Your task to perform on an android device: Show me the best basketball shoes on Nike.com Image 0: 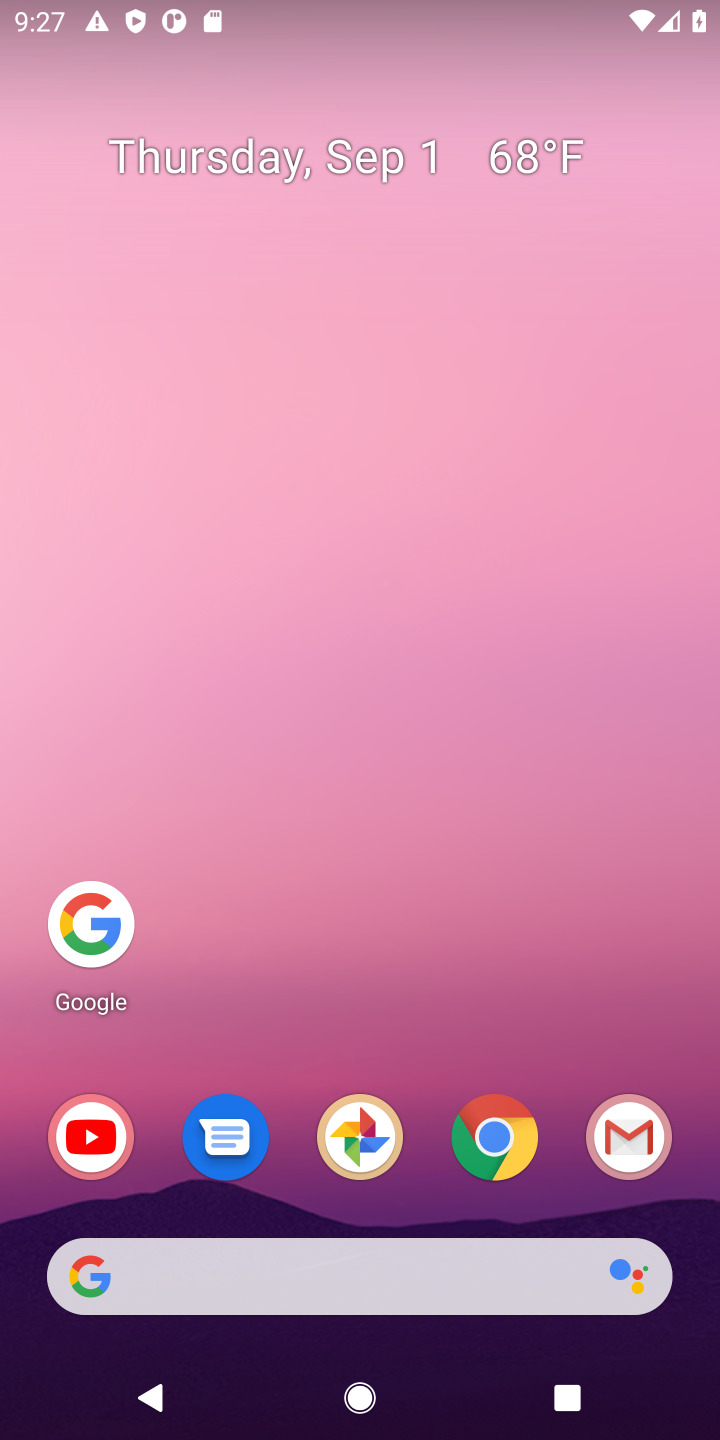
Step 0: click (235, 1257)
Your task to perform on an android device: Show me the best basketball shoes on Nike.com Image 1: 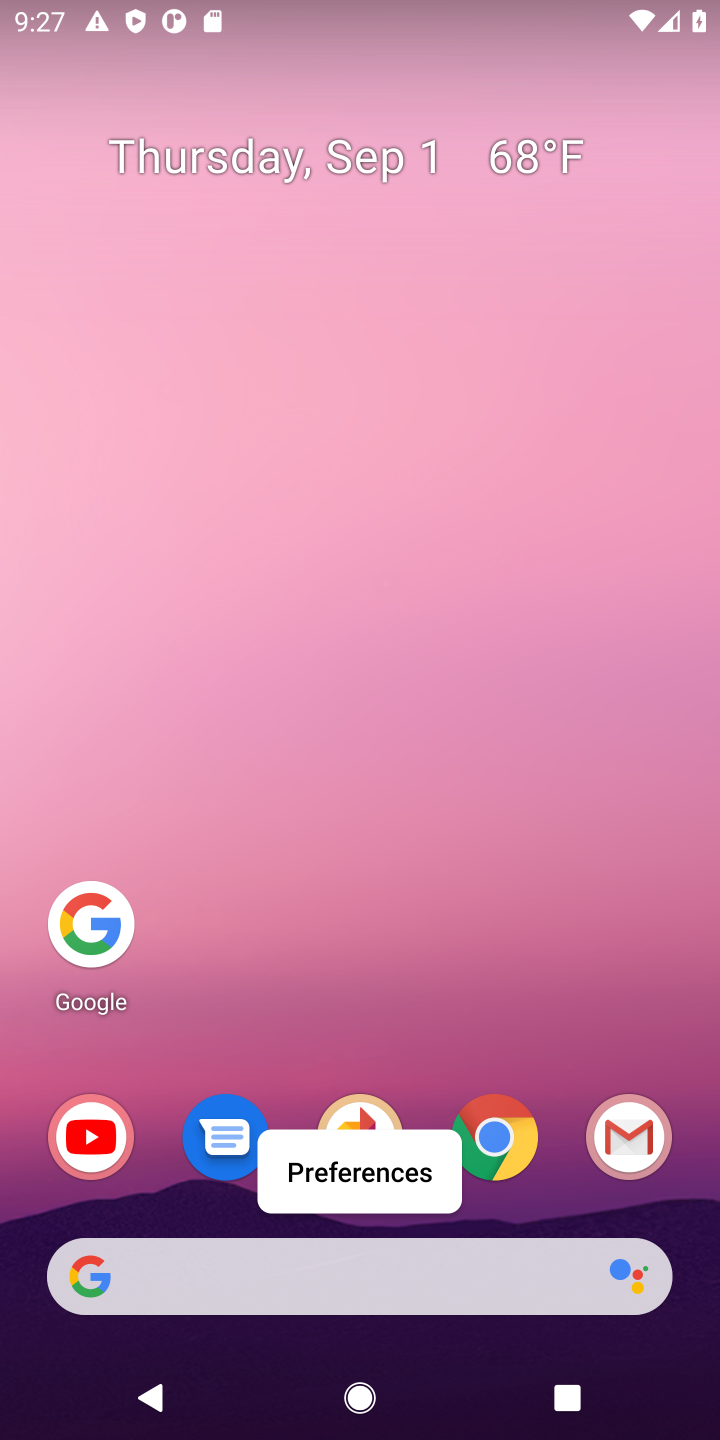
Step 1: click (86, 933)
Your task to perform on an android device: Show me the best basketball shoes on Nike.com Image 2: 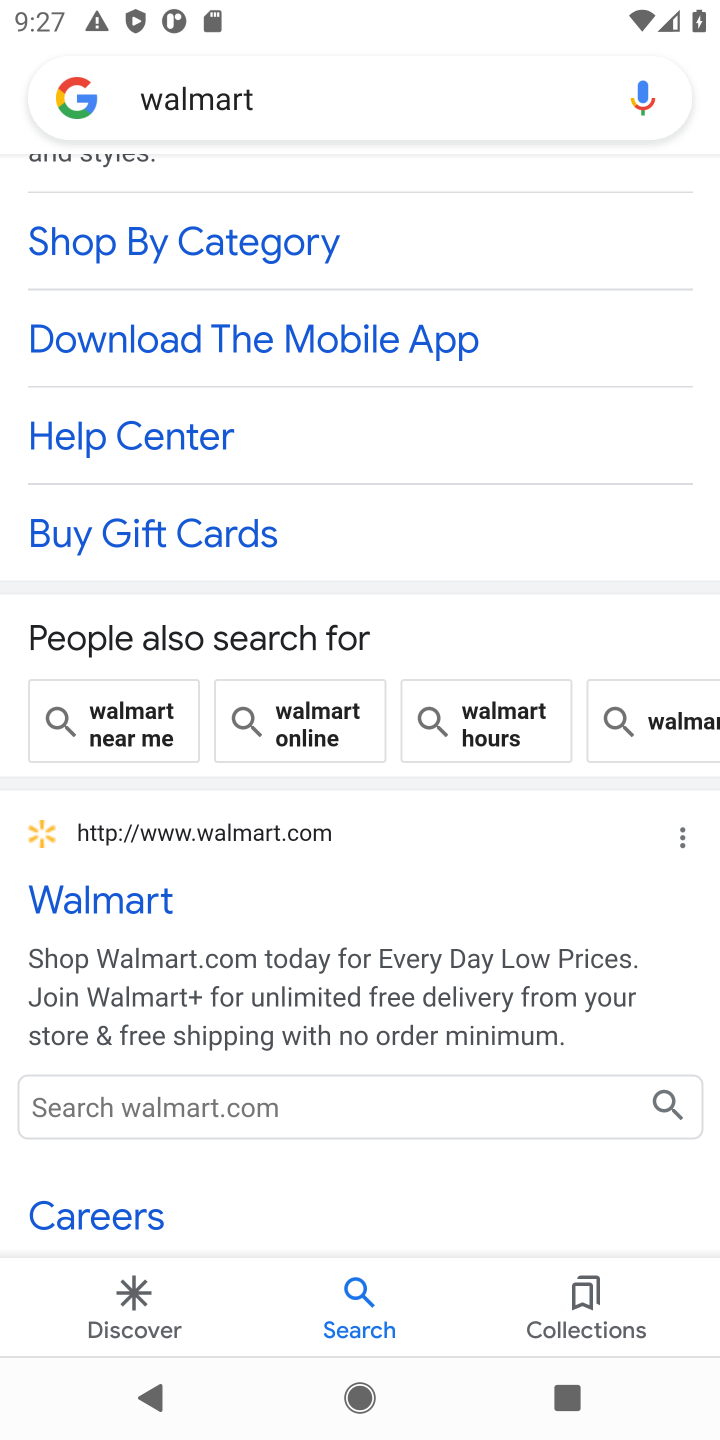
Step 2: click (346, 100)
Your task to perform on an android device: Show me the best basketball shoes on Nike.com Image 3: 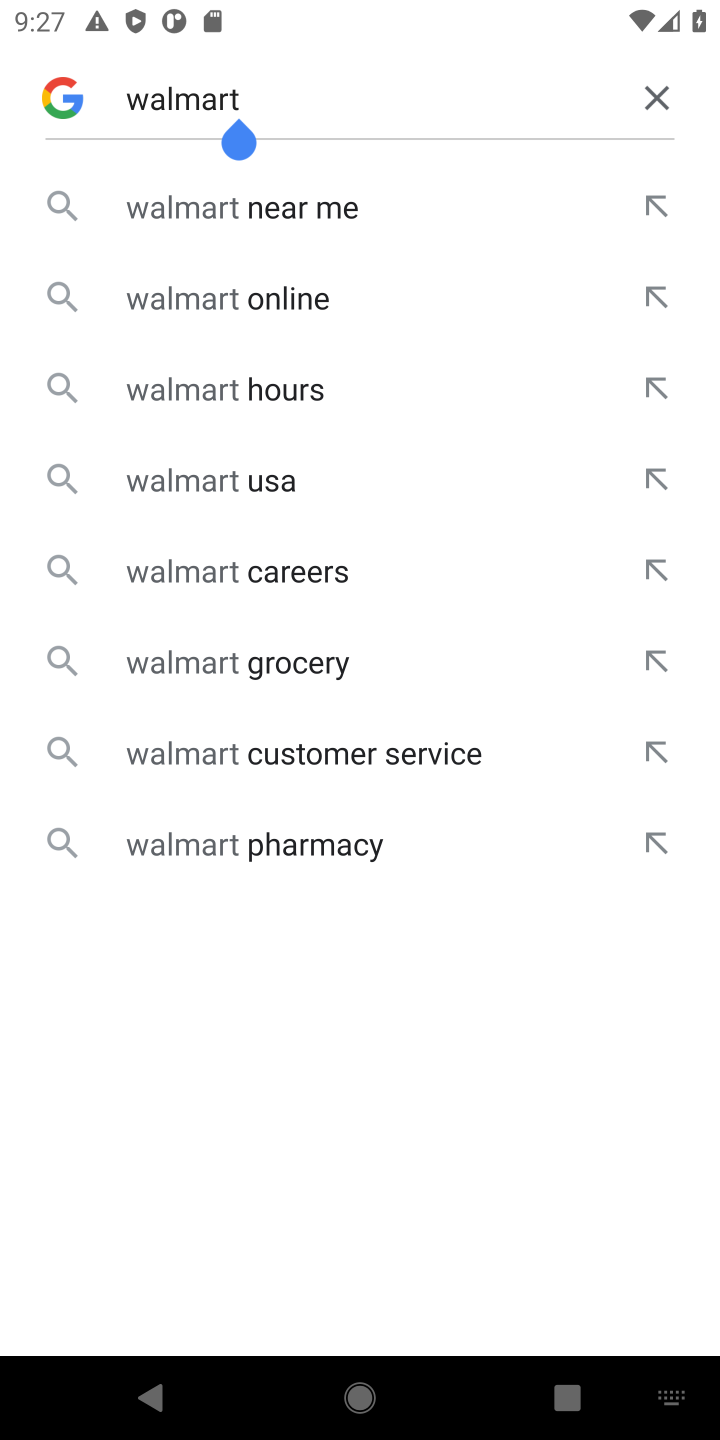
Step 3: click (662, 103)
Your task to perform on an android device: Show me the best basketball shoes on Nike.com Image 4: 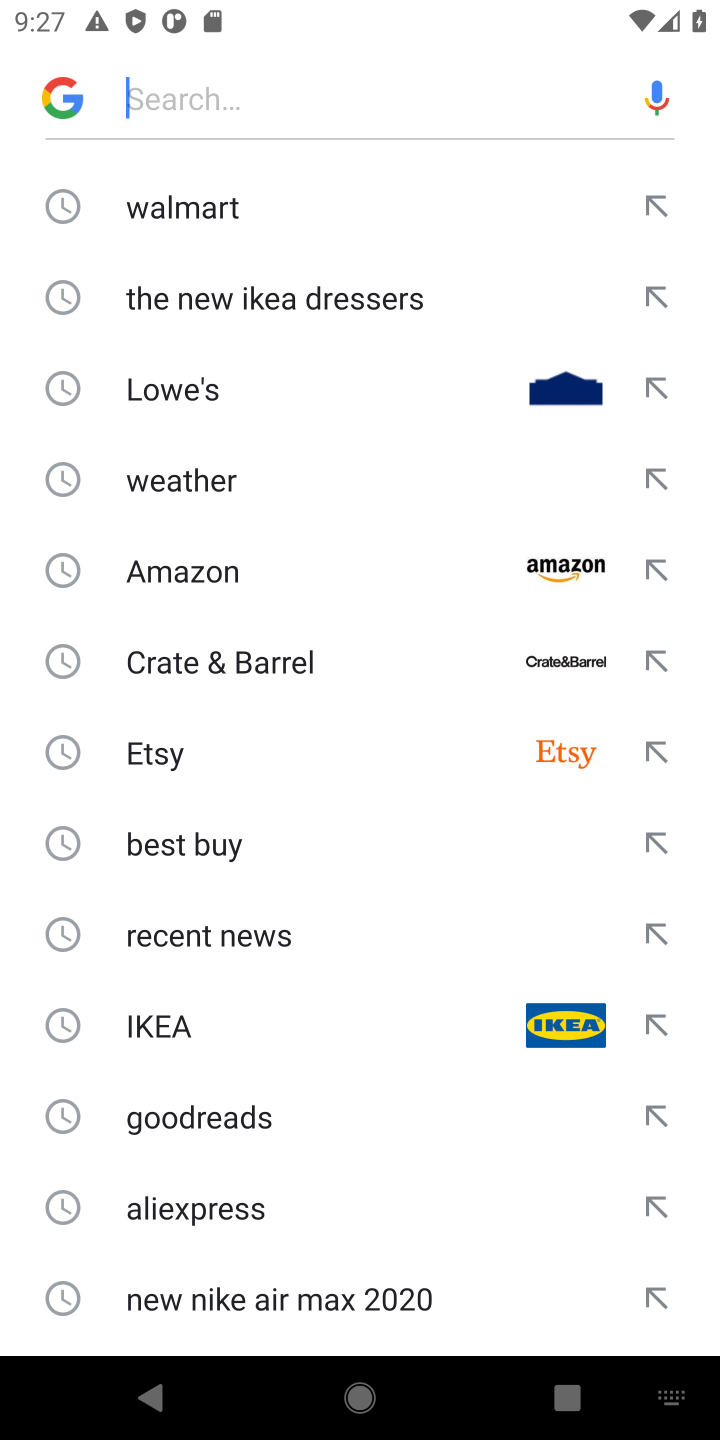
Step 4: type "nike.com"
Your task to perform on an android device: Show me the best basketball shoes on Nike.com Image 5: 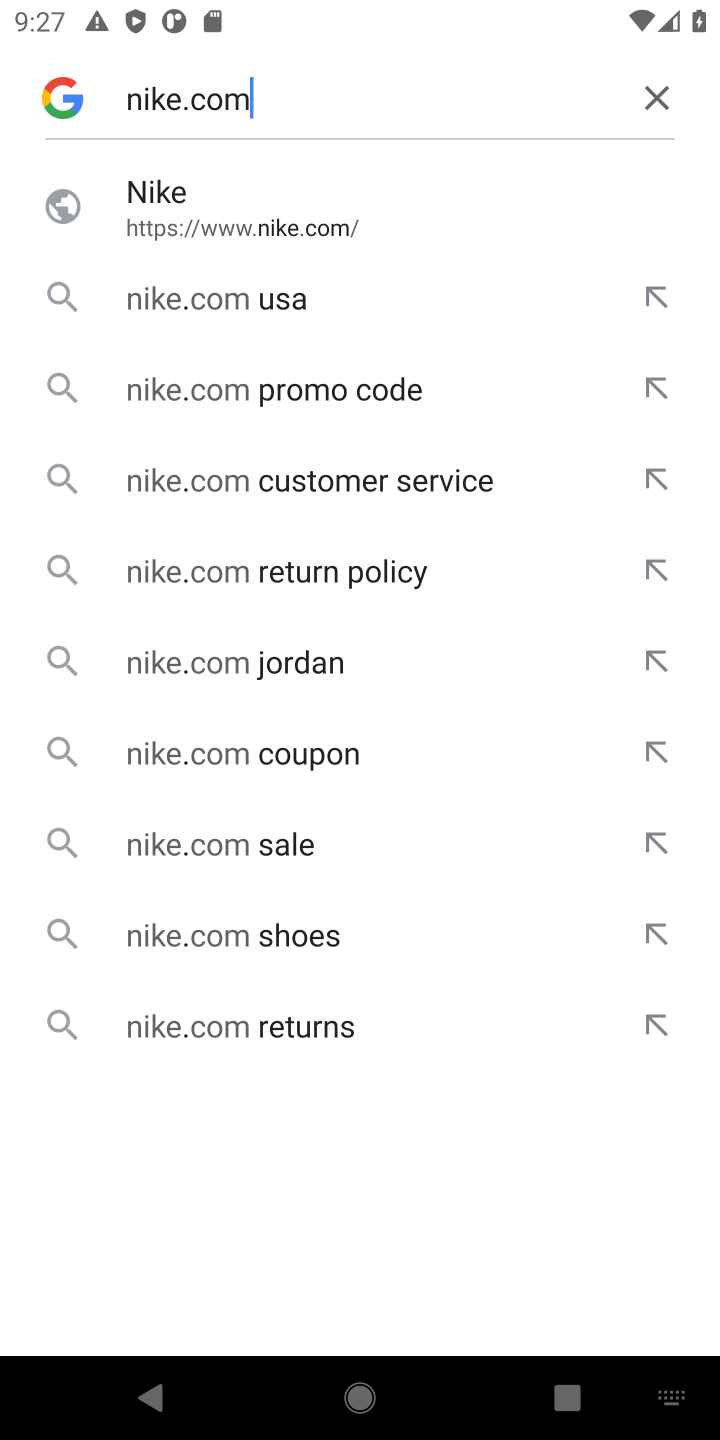
Step 5: click (153, 185)
Your task to perform on an android device: Show me the best basketball shoes on Nike.com Image 6: 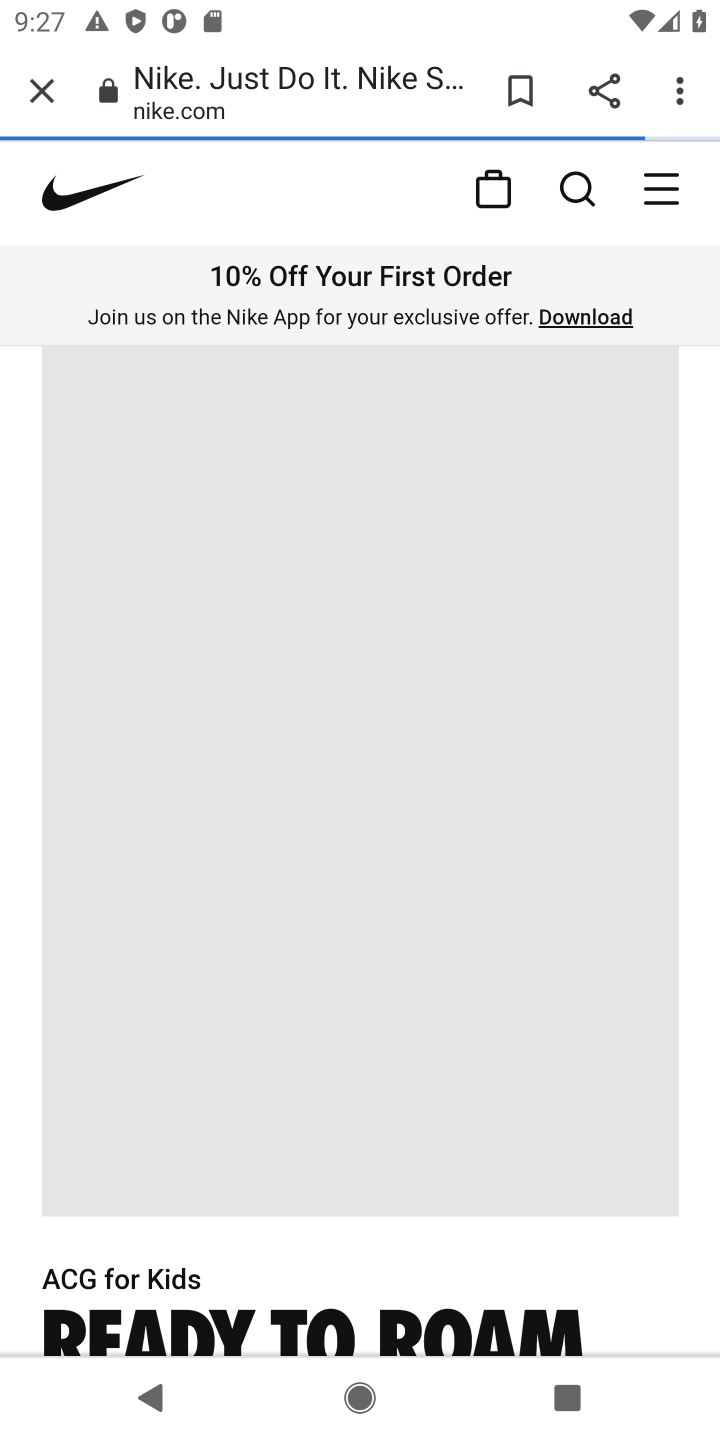
Step 6: click (569, 191)
Your task to perform on an android device: Show me the best basketball shoes on Nike.com Image 7: 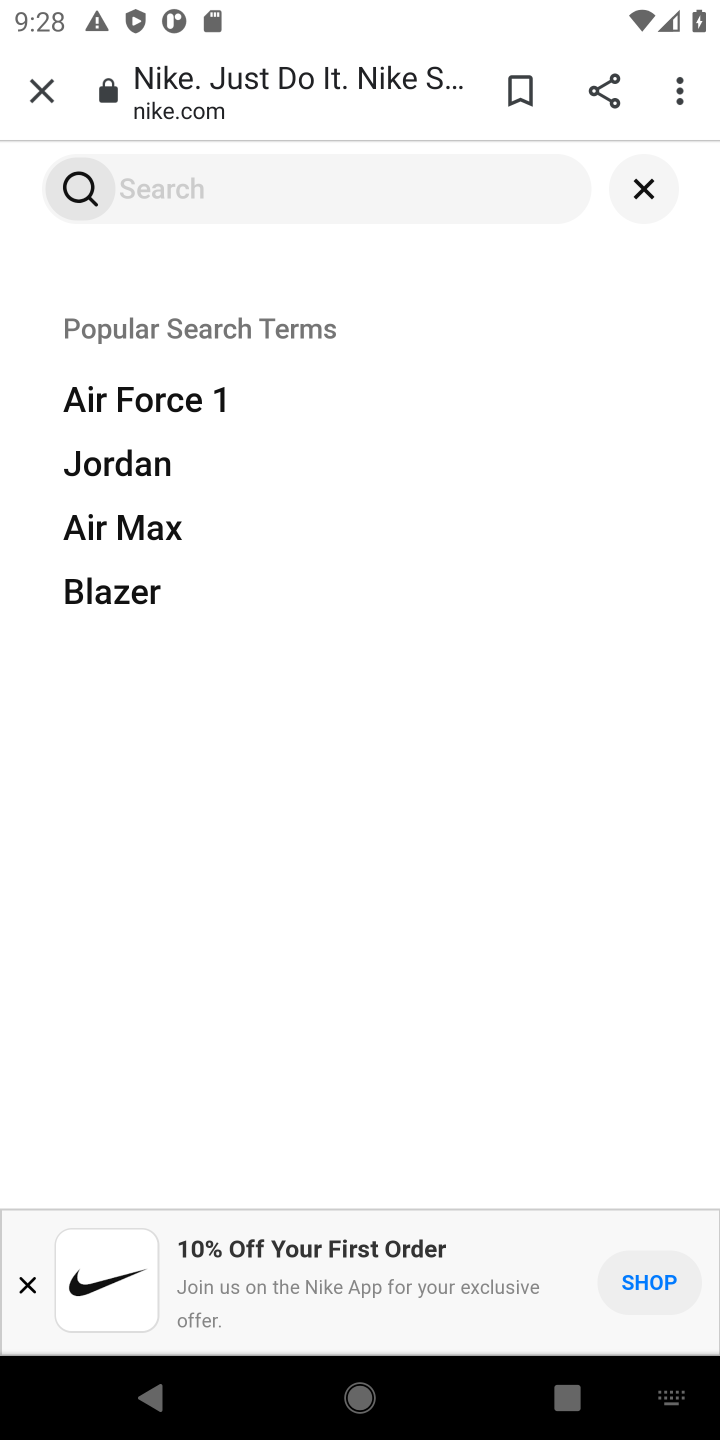
Step 7: type "best basketball shoes"
Your task to perform on an android device: Show me the best basketball shoes on Nike.com Image 8: 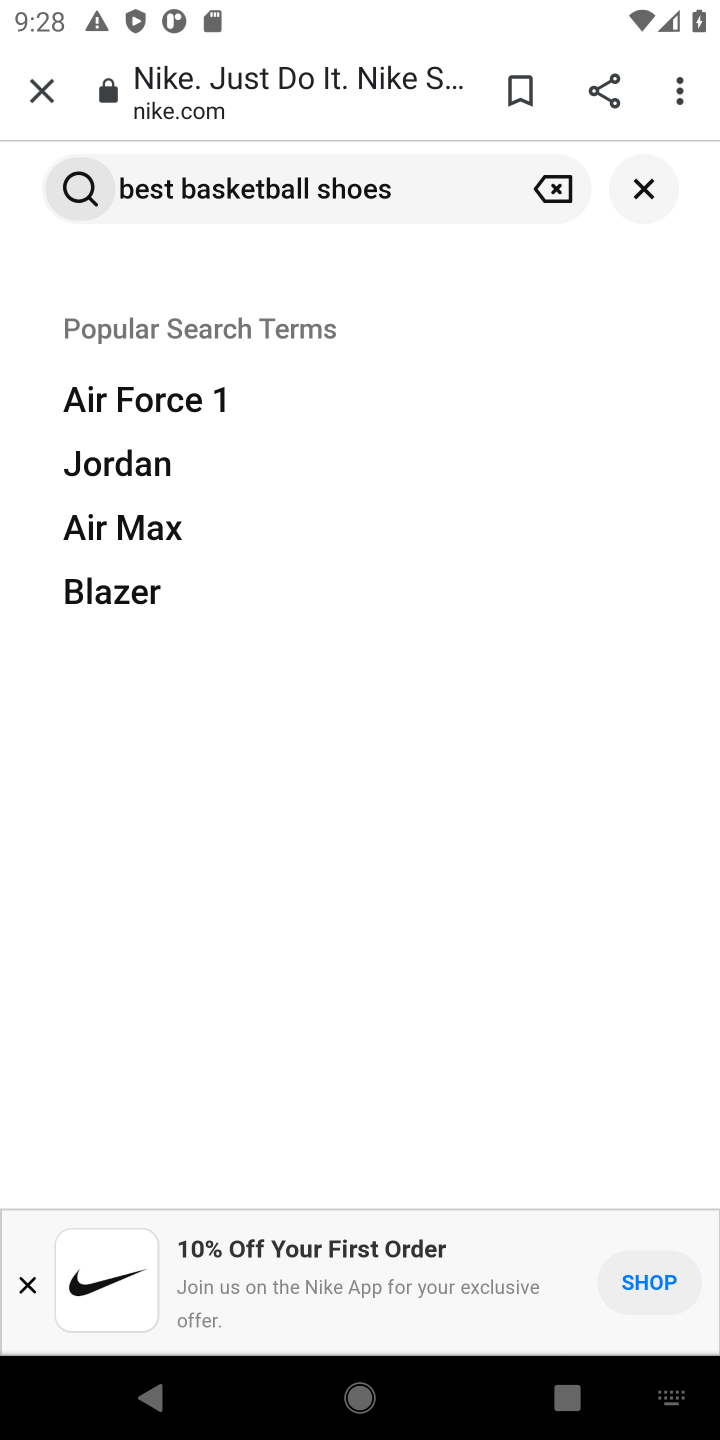
Step 8: click (88, 177)
Your task to perform on an android device: Show me the best basketball shoes on Nike.com Image 9: 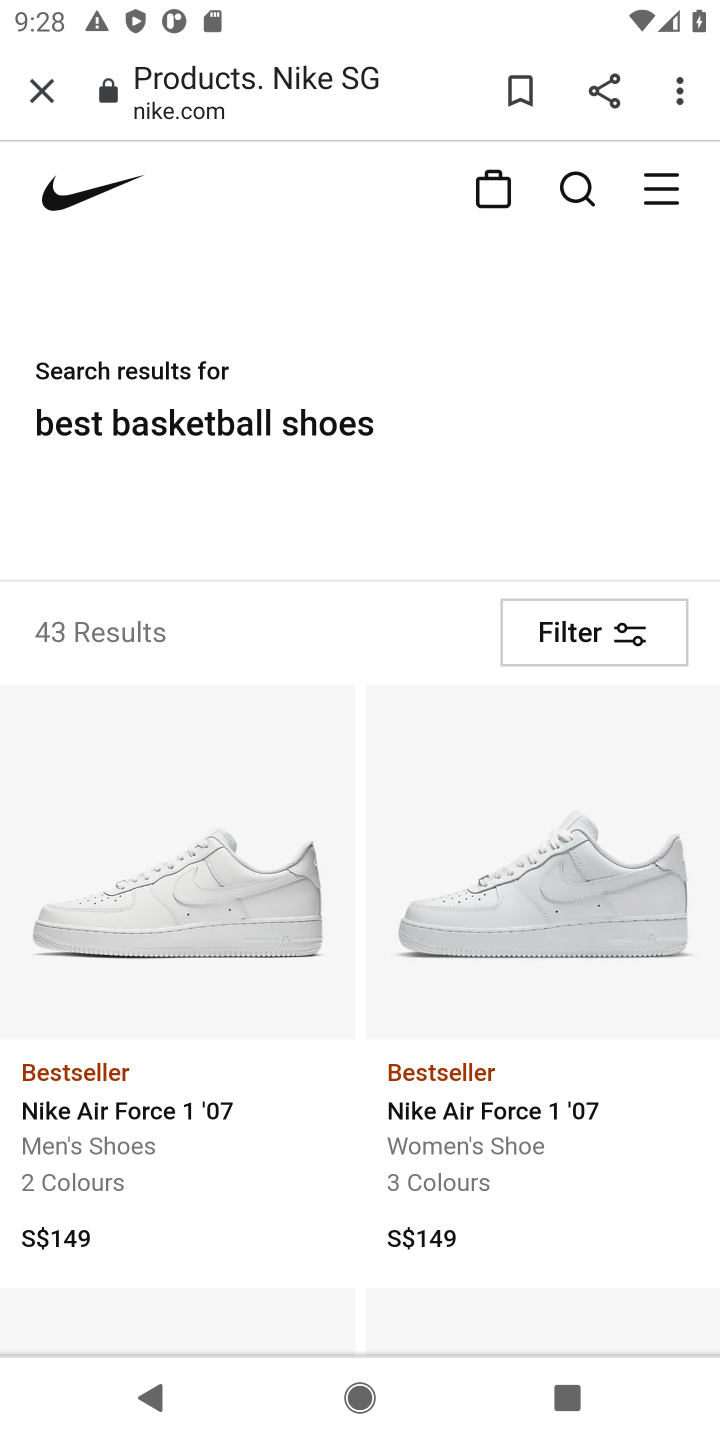
Step 9: task complete